Your task to perform on an android device: turn off wifi Image 0: 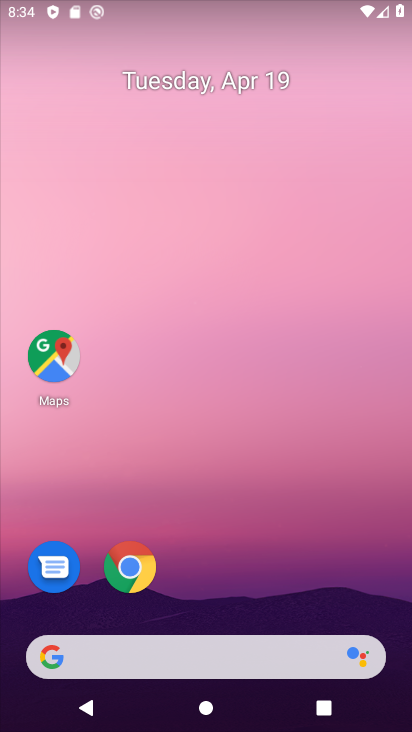
Step 0: drag from (283, 2) to (366, 647)
Your task to perform on an android device: turn off wifi Image 1: 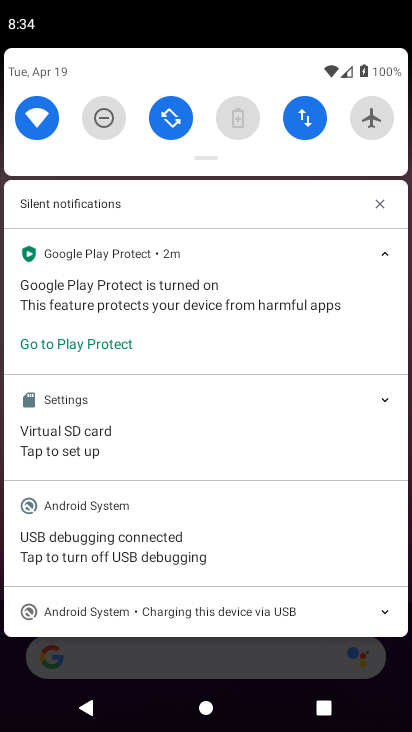
Step 1: click (44, 116)
Your task to perform on an android device: turn off wifi Image 2: 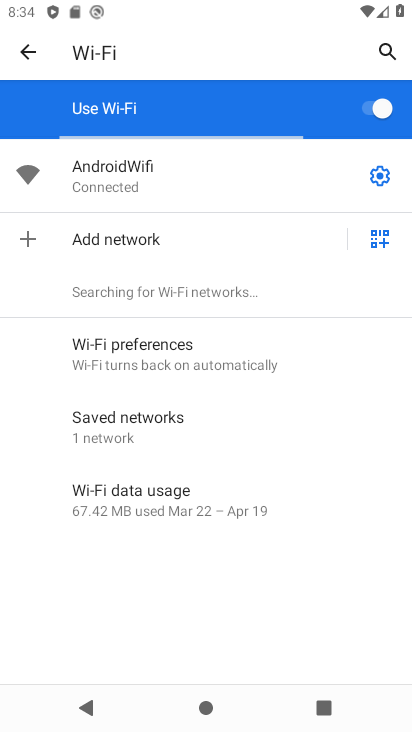
Step 2: click (371, 119)
Your task to perform on an android device: turn off wifi Image 3: 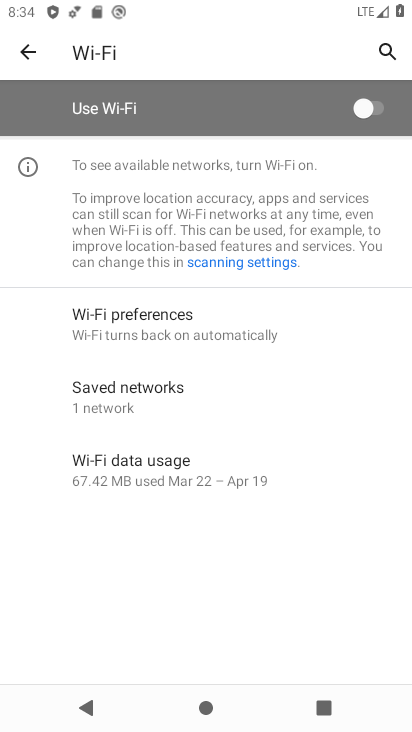
Step 3: task complete